Your task to perform on an android device: change your default location settings in chrome Image 0: 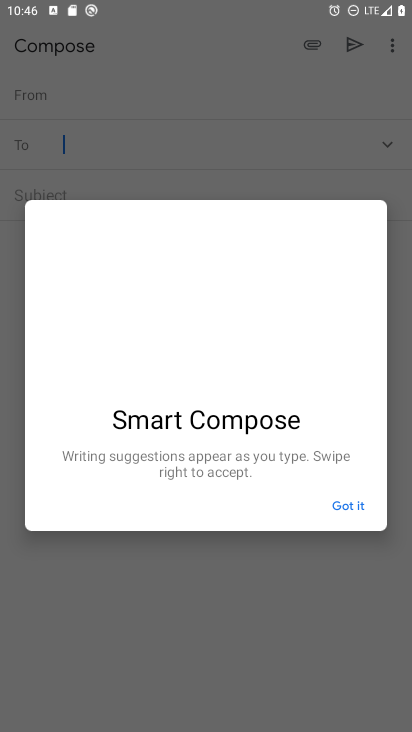
Step 0: press home button
Your task to perform on an android device: change your default location settings in chrome Image 1: 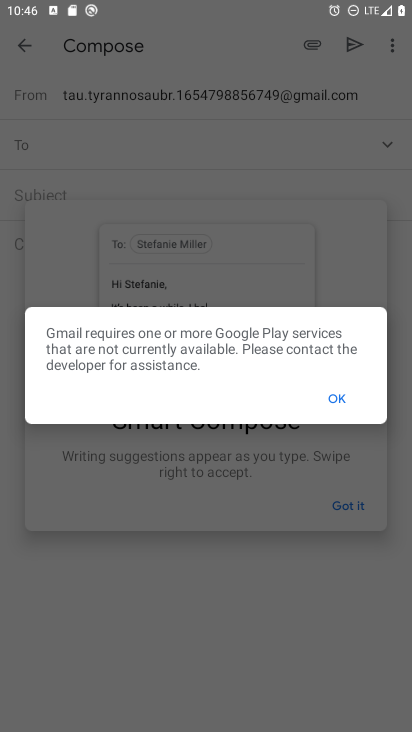
Step 1: press home button
Your task to perform on an android device: change your default location settings in chrome Image 2: 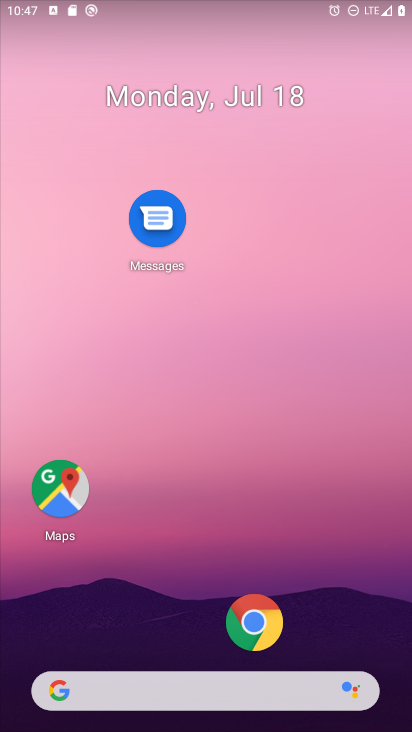
Step 2: click (265, 631)
Your task to perform on an android device: change your default location settings in chrome Image 3: 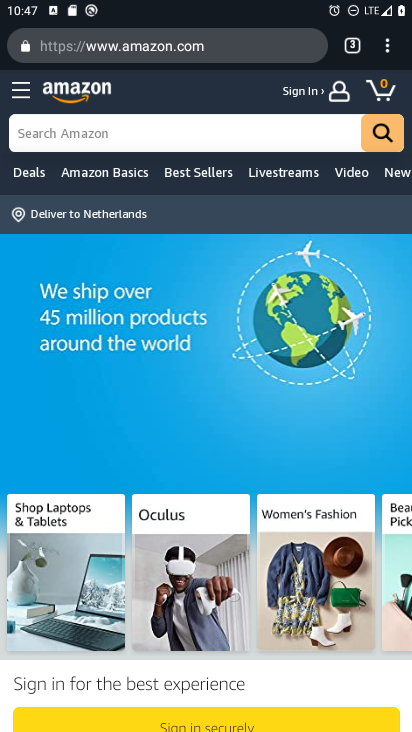
Step 3: click (385, 52)
Your task to perform on an android device: change your default location settings in chrome Image 4: 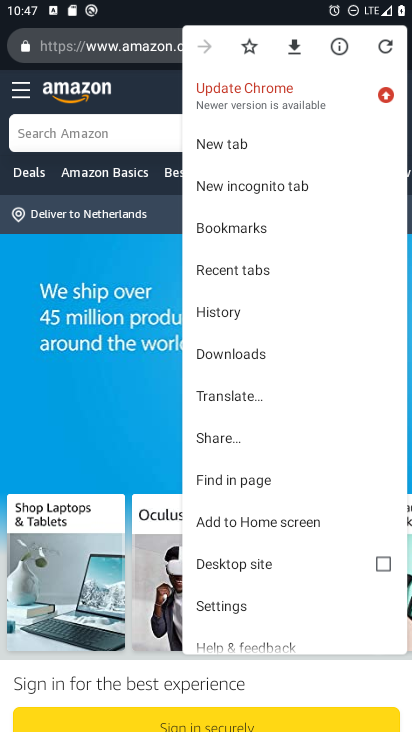
Step 4: click (230, 613)
Your task to perform on an android device: change your default location settings in chrome Image 5: 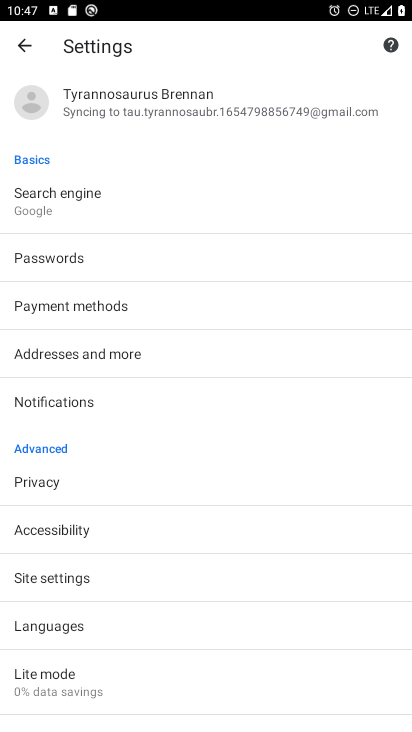
Step 5: click (40, 582)
Your task to perform on an android device: change your default location settings in chrome Image 6: 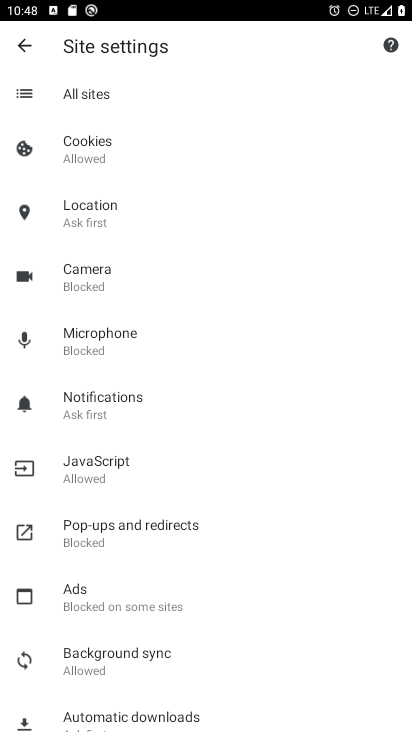
Step 6: drag from (174, 596) to (214, 421)
Your task to perform on an android device: change your default location settings in chrome Image 7: 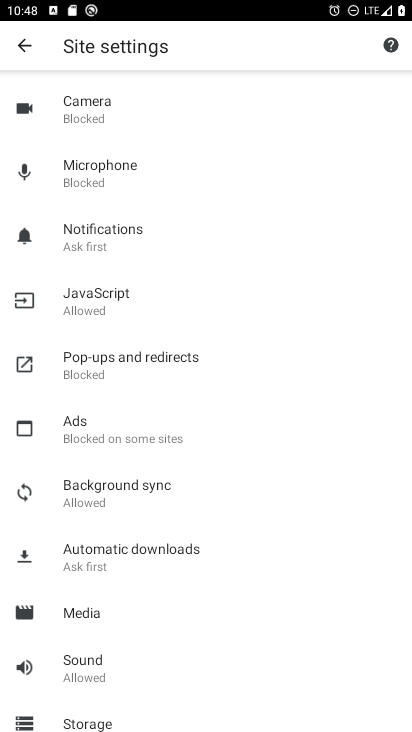
Step 7: drag from (227, 390) to (185, 573)
Your task to perform on an android device: change your default location settings in chrome Image 8: 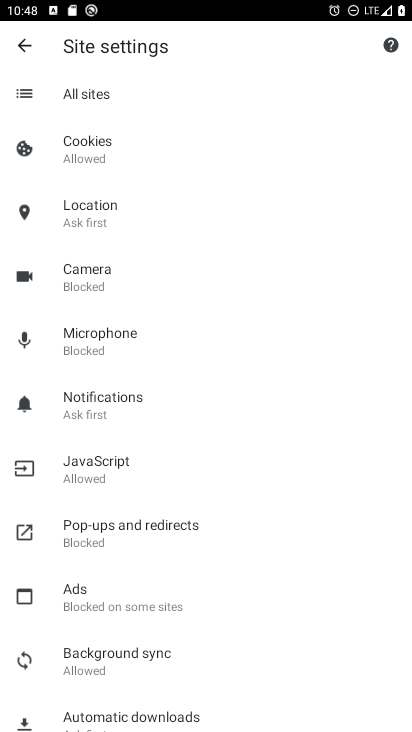
Step 8: click (116, 225)
Your task to perform on an android device: change your default location settings in chrome Image 9: 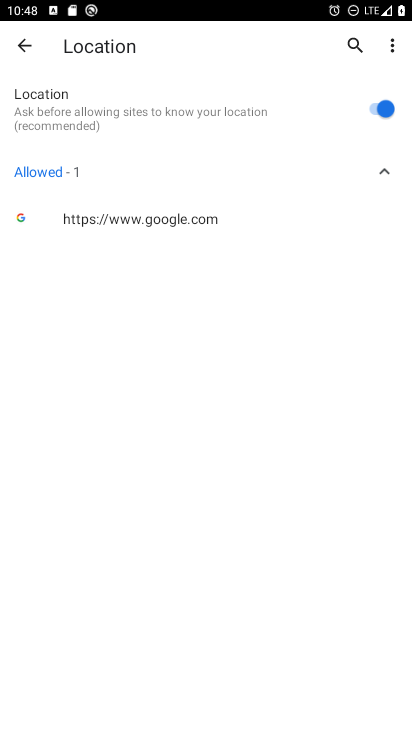
Step 9: click (389, 106)
Your task to perform on an android device: change your default location settings in chrome Image 10: 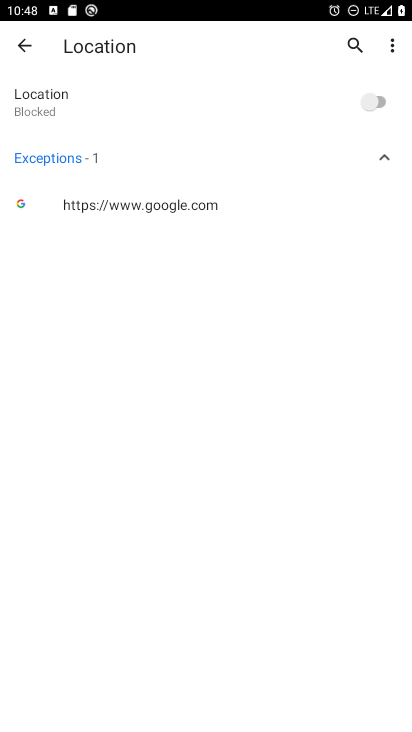
Step 10: task complete